Your task to perform on an android device: Check the news Image 0: 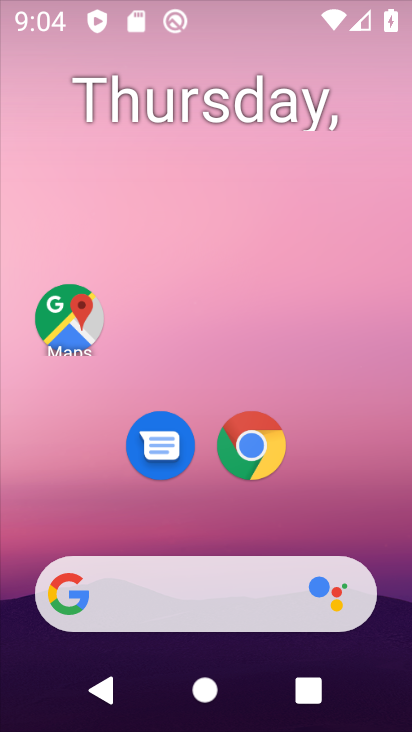
Step 0: drag from (186, 537) to (280, 216)
Your task to perform on an android device: Check the news Image 1: 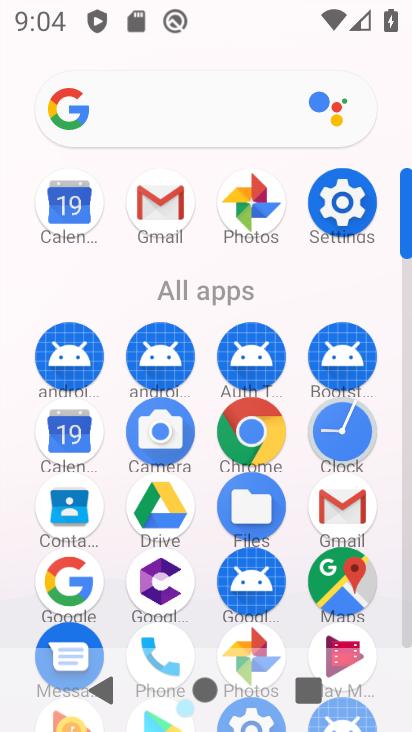
Step 1: click (173, 91)
Your task to perform on an android device: Check the news Image 2: 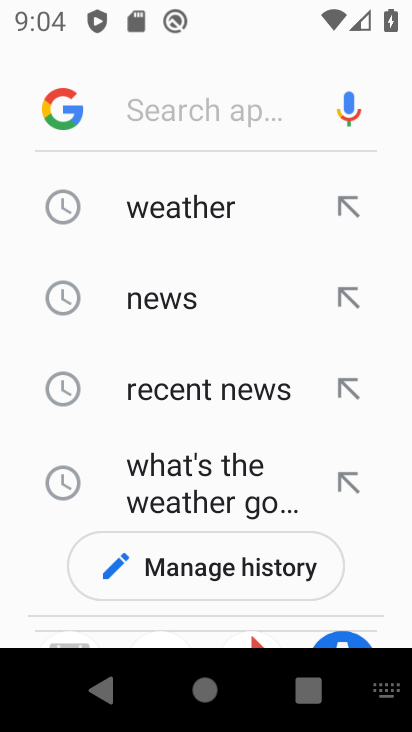
Step 2: click (131, 315)
Your task to perform on an android device: Check the news Image 3: 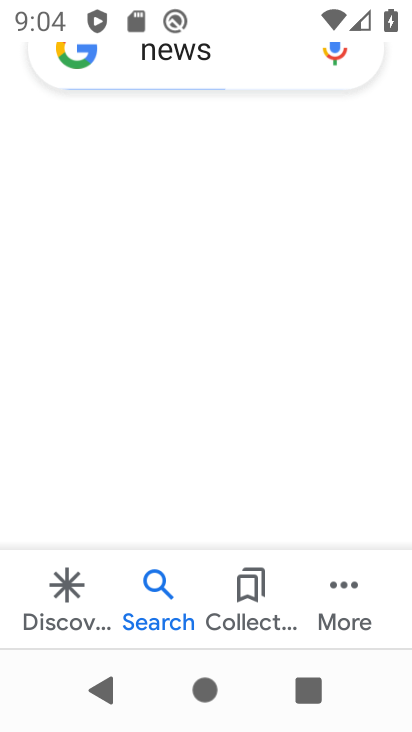
Step 3: task complete